Your task to perform on an android device: Set the phone to "Do not disturb". Image 0: 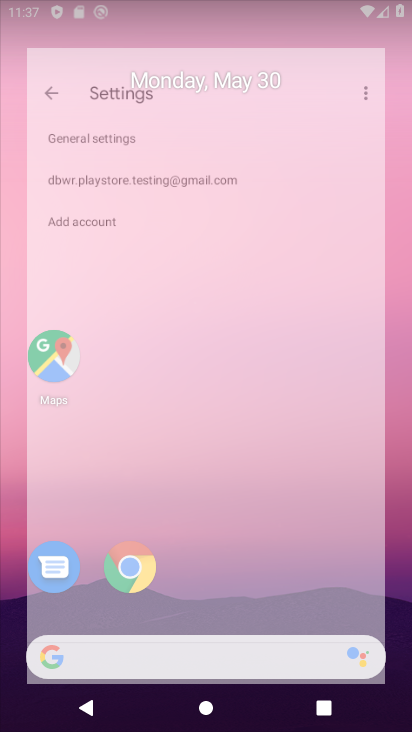
Step 0: drag from (280, 468) to (240, 41)
Your task to perform on an android device: Set the phone to "Do not disturb". Image 1: 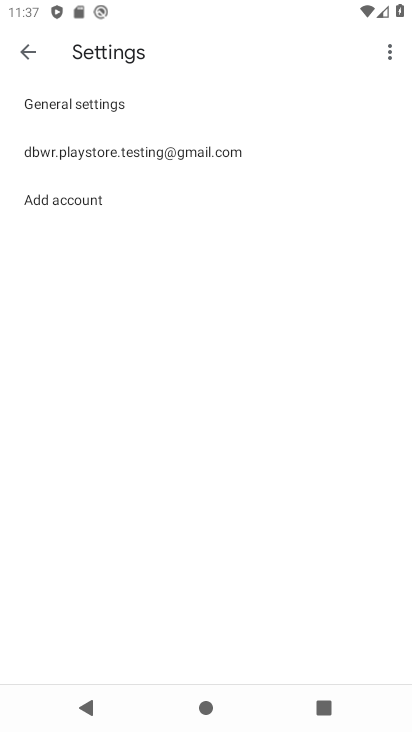
Step 1: press back button
Your task to perform on an android device: Set the phone to "Do not disturb". Image 2: 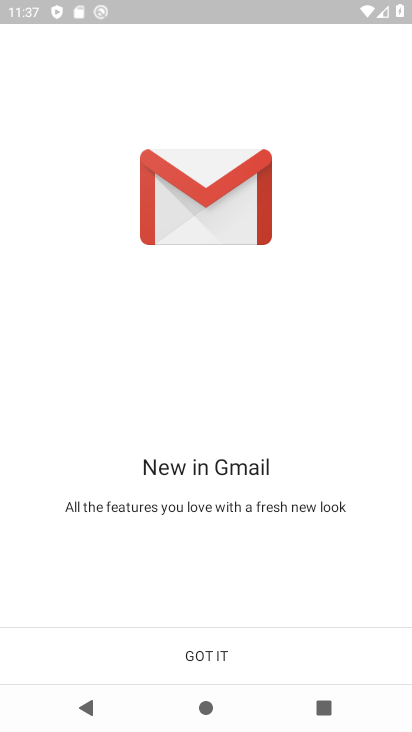
Step 2: press home button
Your task to perform on an android device: Set the phone to "Do not disturb". Image 3: 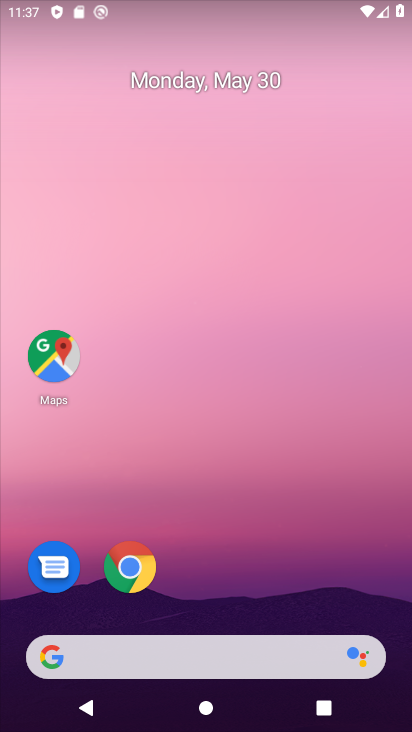
Step 3: drag from (279, 561) to (198, 5)
Your task to perform on an android device: Set the phone to "Do not disturb". Image 4: 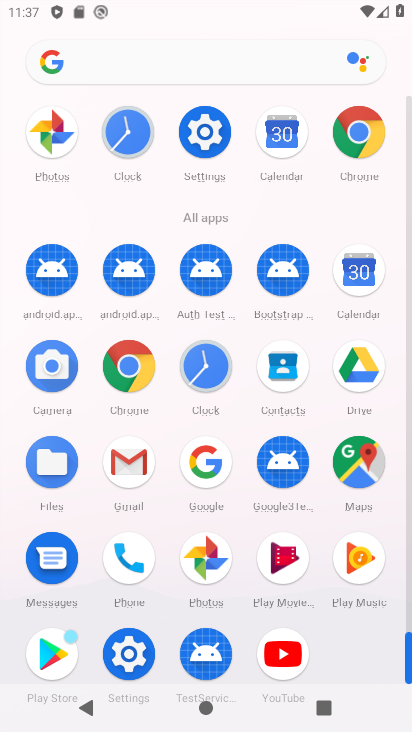
Step 4: drag from (6, 585) to (15, 217)
Your task to perform on an android device: Set the phone to "Do not disturb". Image 5: 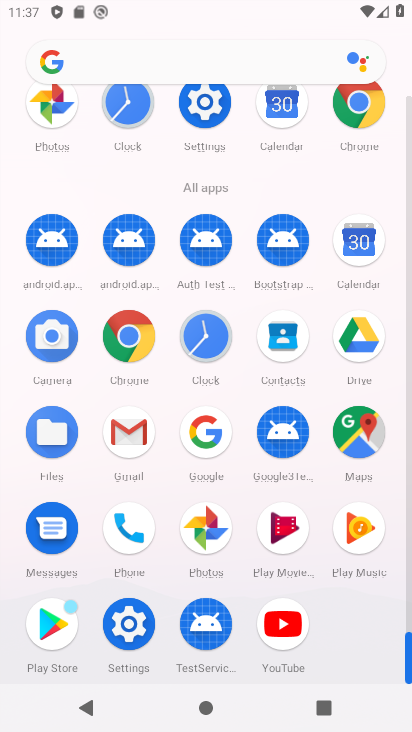
Step 5: click (133, 618)
Your task to perform on an android device: Set the phone to "Do not disturb". Image 6: 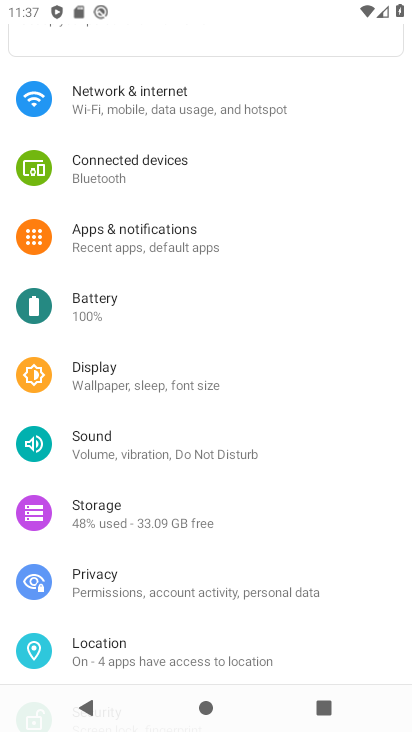
Step 6: click (156, 454)
Your task to perform on an android device: Set the phone to "Do not disturb". Image 7: 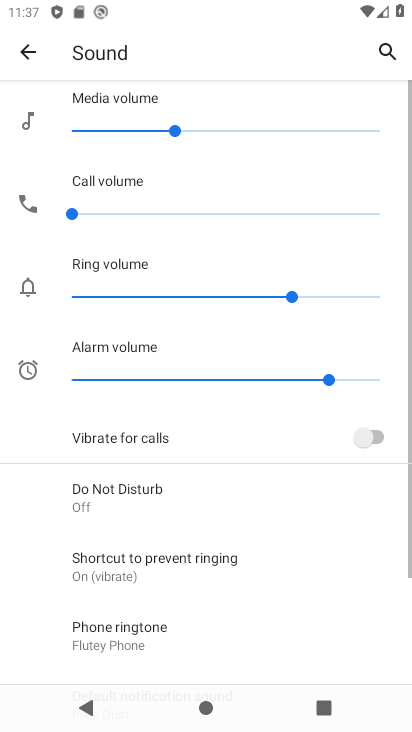
Step 7: drag from (181, 514) to (266, 61)
Your task to perform on an android device: Set the phone to "Do not disturb". Image 8: 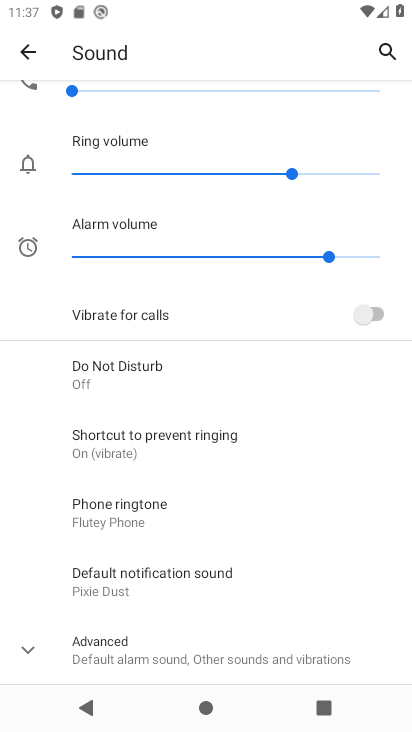
Step 8: click (109, 664)
Your task to perform on an android device: Set the phone to "Do not disturb". Image 9: 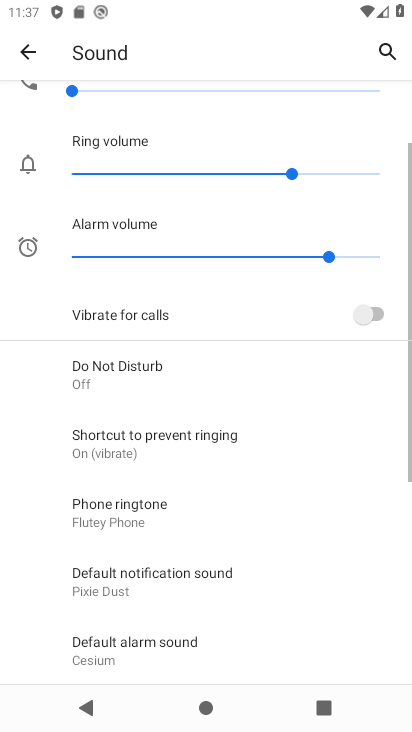
Step 9: click (145, 366)
Your task to perform on an android device: Set the phone to "Do not disturb". Image 10: 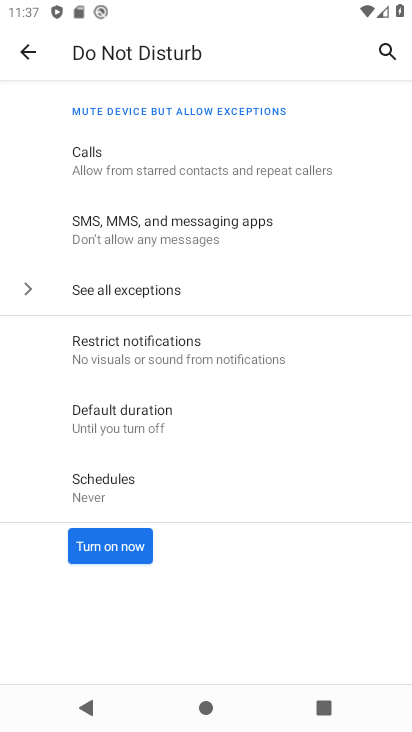
Step 10: click (121, 561)
Your task to perform on an android device: Set the phone to "Do not disturb". Image 11: 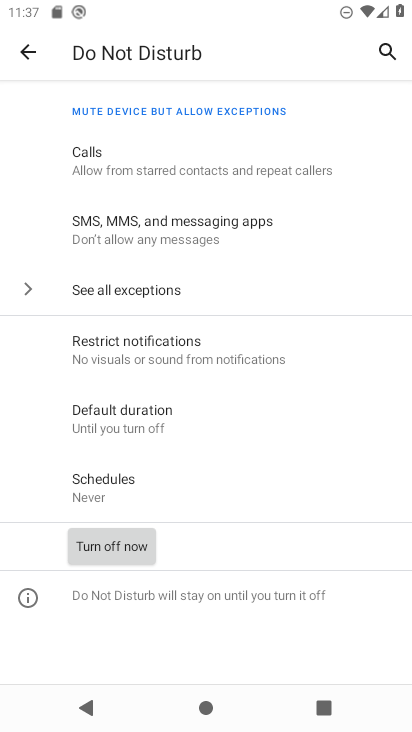
Step 11: task complete